Your task to perform on an android device: toggle data saver in the chrome app Image 0: 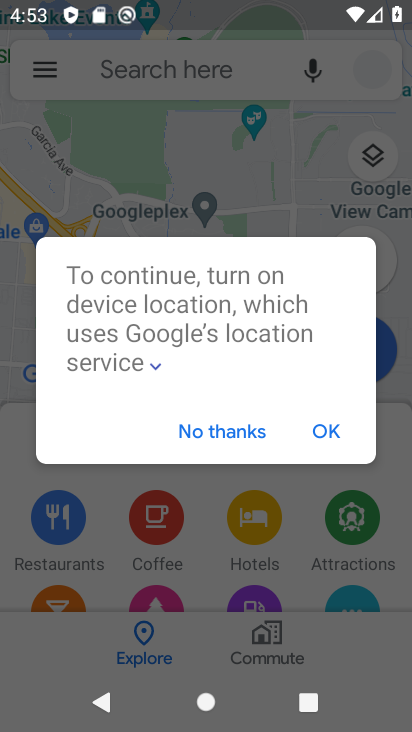
Step 0: press home button
Your task to perform on an android device: toggle data saver in the chrome app Image 1: 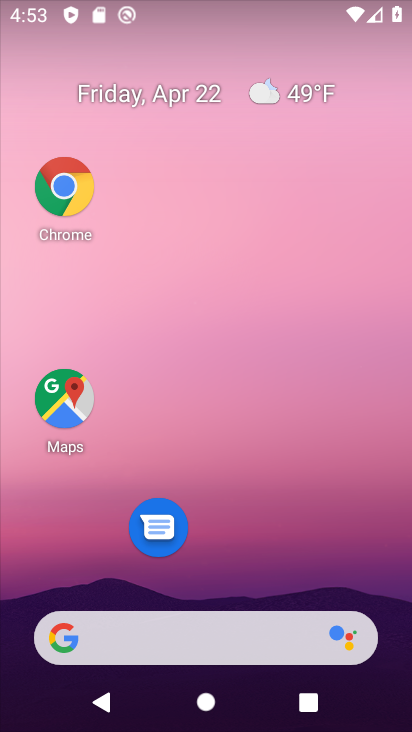
Step 1: drag from (237, 702) to (188, 265)
Your task to perform on an android device: toggle data saver in the chrome app Image 2: 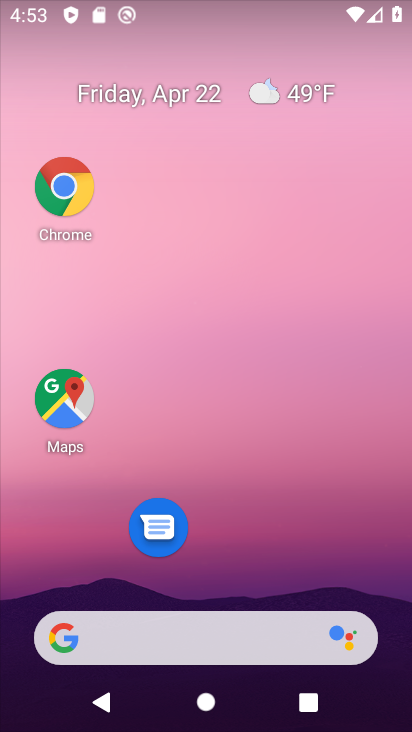
Step 2: drag from (252, 448) to (202, 120)
Your task to perform on an android device: toggle data saver in the chrome app Image 3: 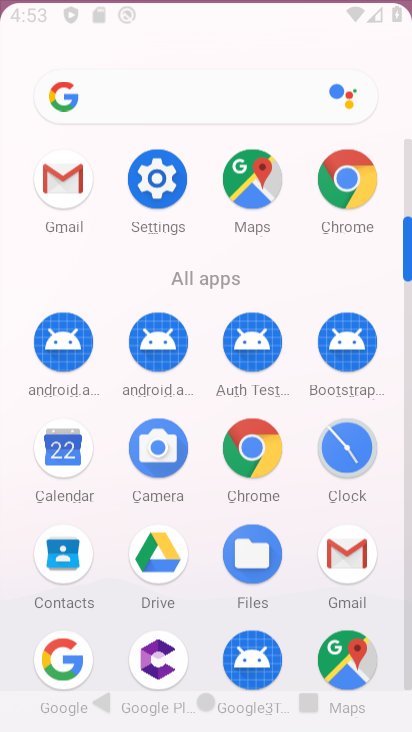
Step 3: drag from (255, 353) to (218, 77)
Your task to perform on an android device: toggle data saver in the chrome app Image 4: 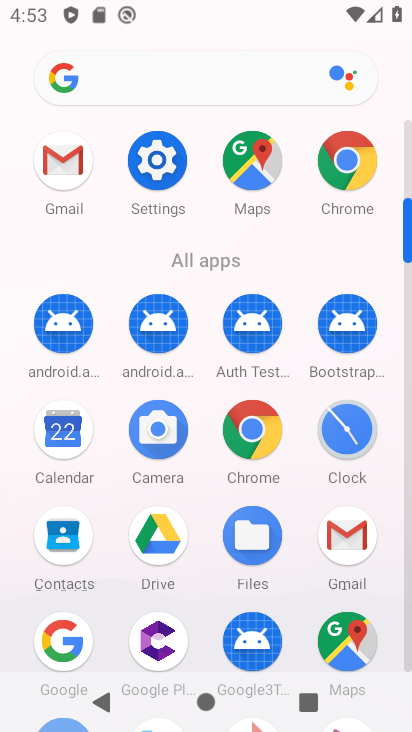
Step 4: click (343, 162)
Your task to perform on an android device: toggle data saver in the chrome app Image 5: 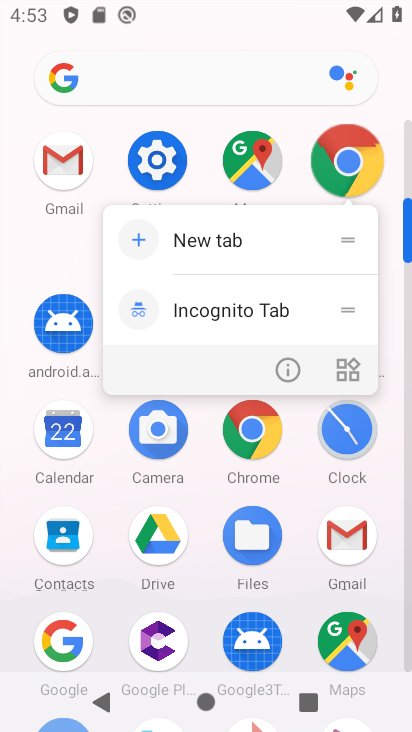
Step 5: click (346, 161)
Your task to perform on an android device: toggle data saver in the chrome app Image 6: 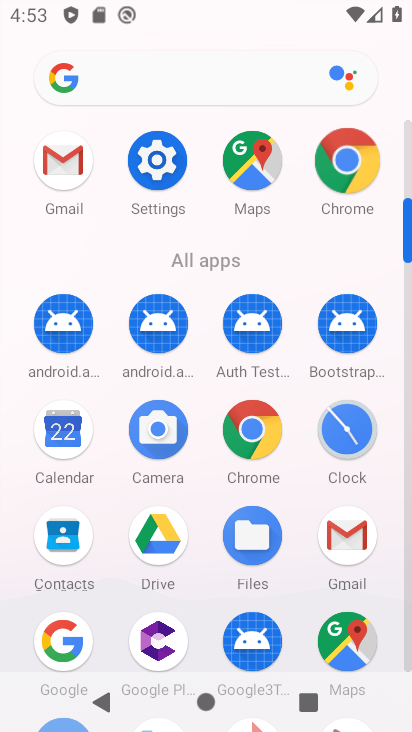
Step 6: click (347, 161)
Your task to perform on an android device: toggle data saver in the chrome app Image 7: 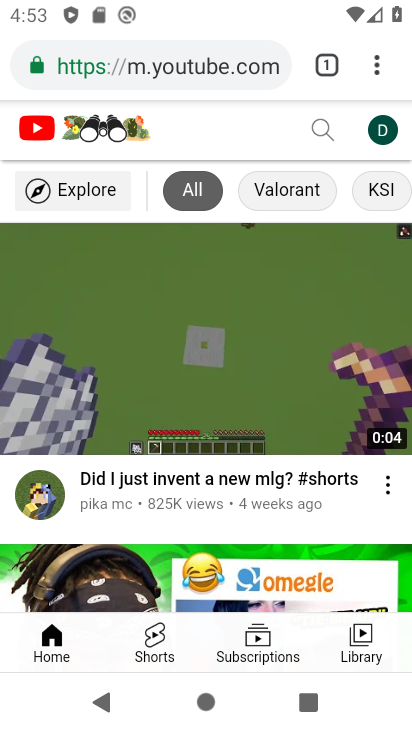
Step 7: click (356, 175)
Your task to perform on an android device: toggle data saver in the chrome app Image 8: 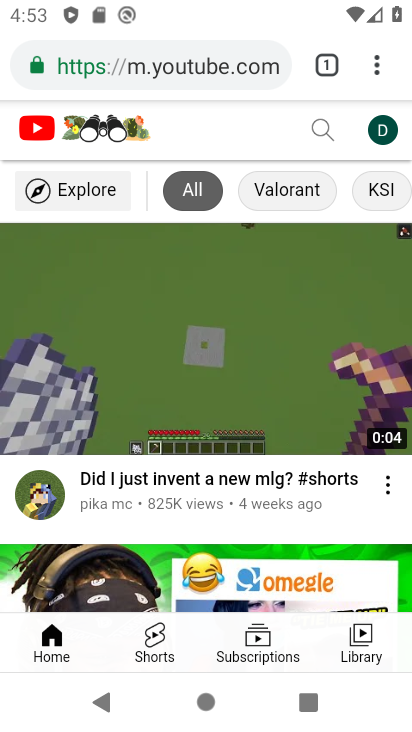
Step 8: click (279, 454)
Your task to perform on an android device: toggle data saver in the chrome app Image 9: 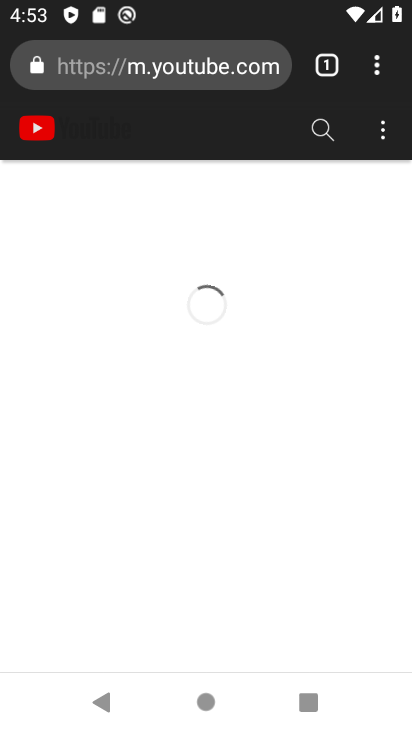
Step 9: drag from (379, 68) to (149, 594)
Your task to perform on an android device: toggle data saver in the chrome app Image 10: 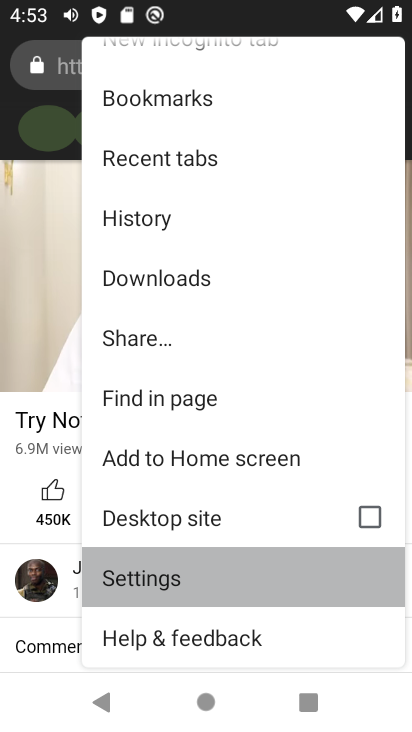
Step 10: click (152, 592)
Your task to perform on an android device: toggle data saver in the chrome app Image 11: 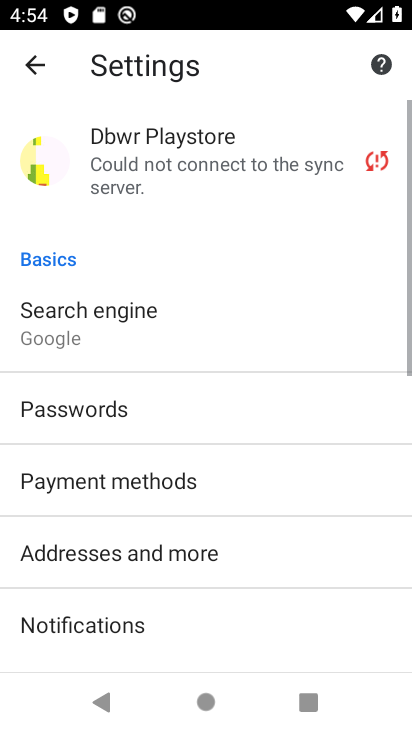
Step 11: drag from (85, 591) to (82, 48)
Your task to perform on an android device: toggle data saver in the chrome app Image 12: 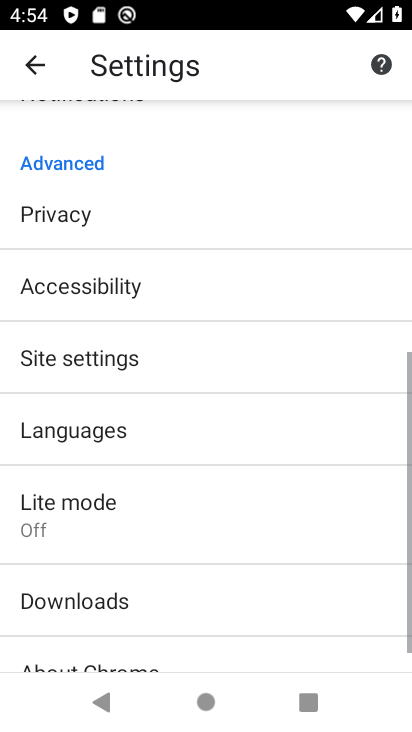
Step 12: drag from (83, 554) to (121, 6)
Your task to perform on an android device: toggle data saver in the chrome app Image 13: 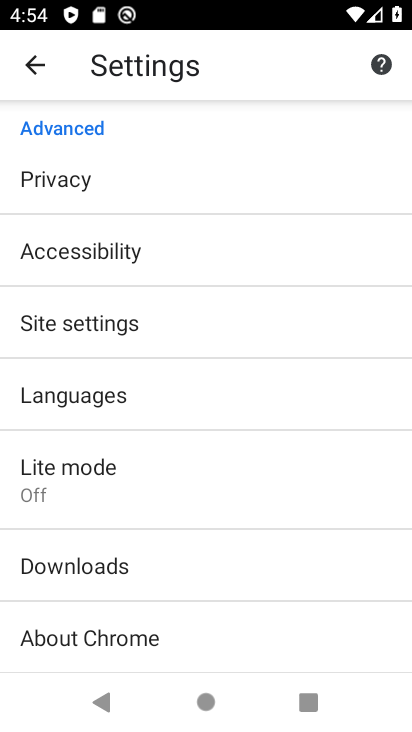
Step 13: click (83, 357)
Your task to perform on an android device: toggle data saver in the chrome app Image 14: 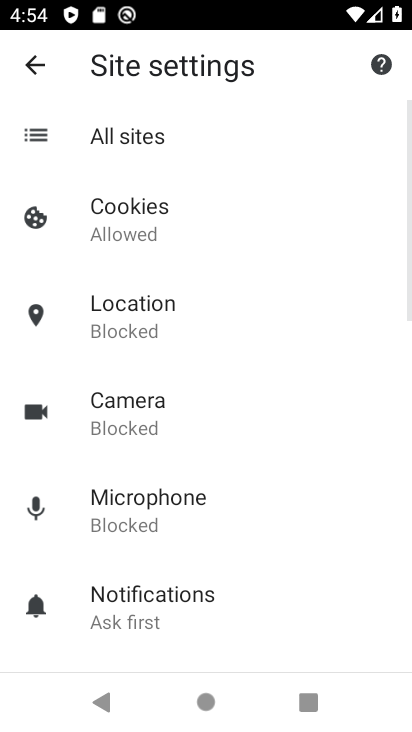
Step 14: click (25, 65)
Your task to perform on an android device: toggle data saver in the chrome app Image 15: 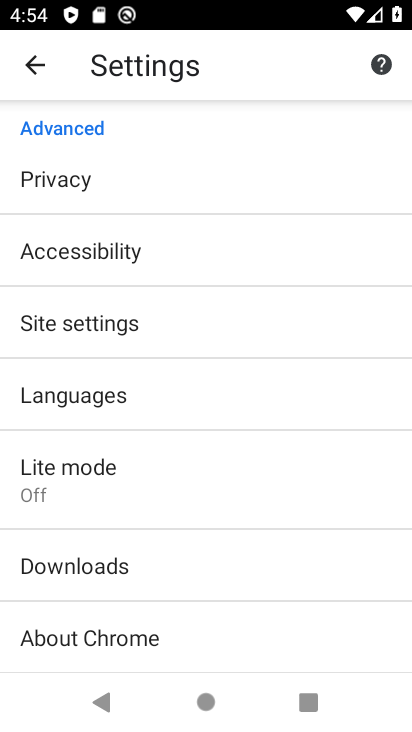
Step 15: click (49, 465)
Your task to perform on an android device: toggle data saver in the chrome app Image 16: 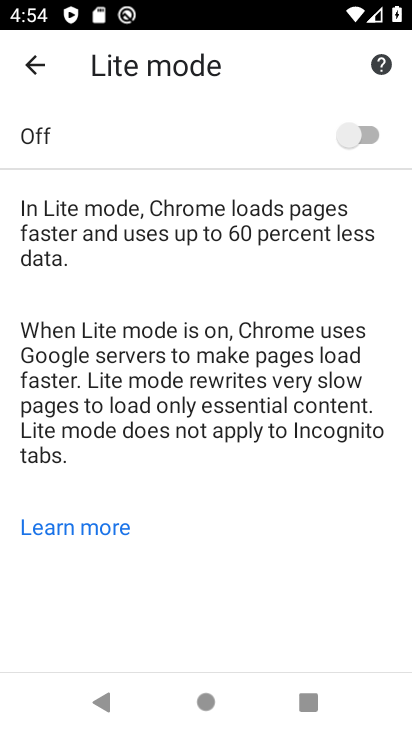
Step 16: click (341, 129)
Your task to perform on an android device: toggle data saver in the chrome app Image 17: 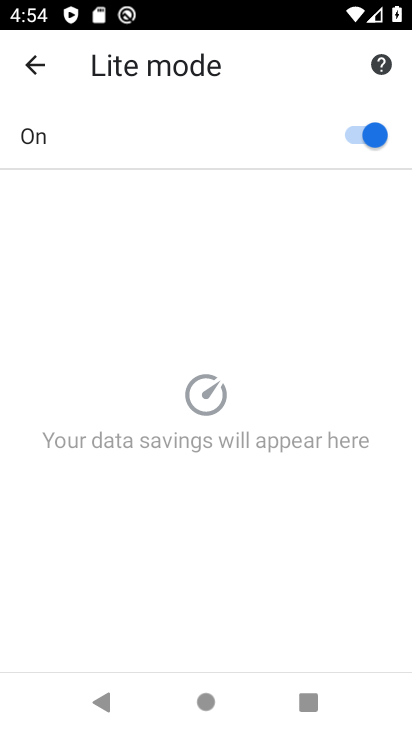
Step 17: task complete